Your task to perform on an android device: Open sound settings Image 0: 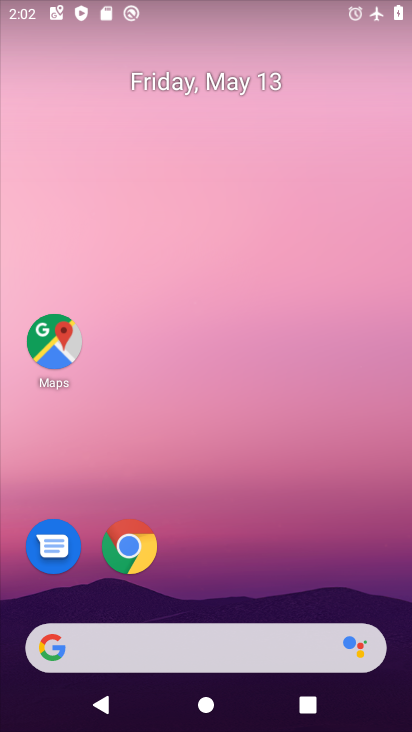
Step 0: drag from (271, 565) to (280, 104)
Your task to perform on an android device: Open sound settings Image 1: 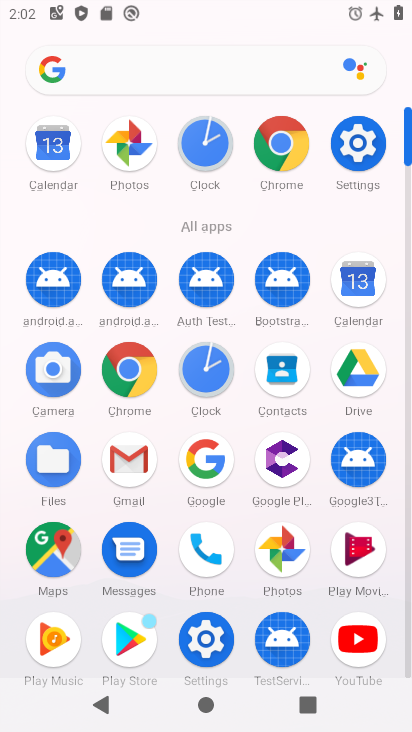
Step 1: click (216, 636)
Your task to perform on an android device: Open sound settings Image 2: 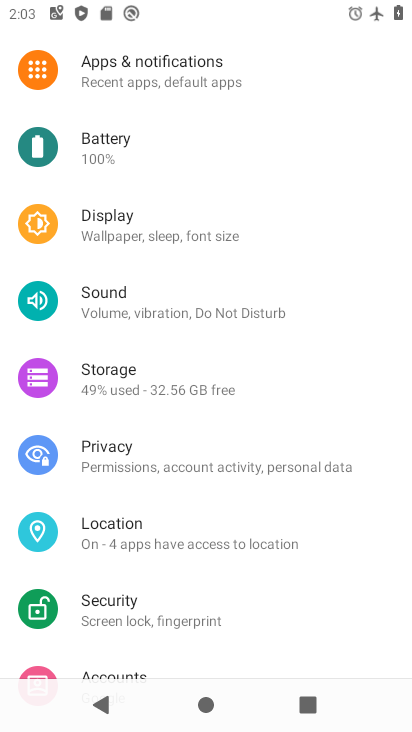
Step 2: click (125, 301)
Your task to perform on an android device: Open sound settings Image 3: 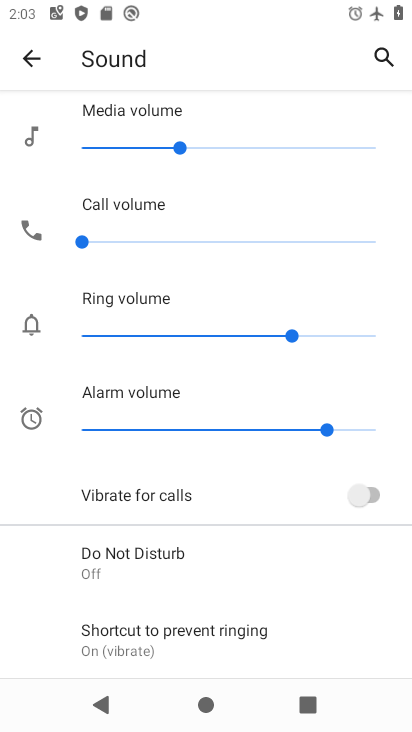
Step 3: task complete